Your task to perform on an android device: Open maps Image 0: 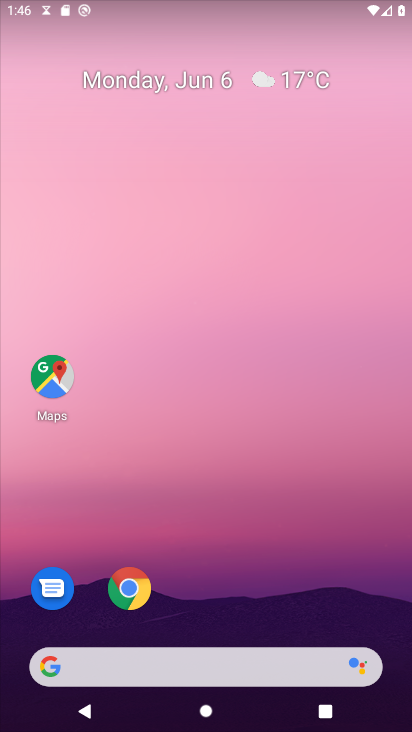
Step 0: click (51, 380)
Your task to perform on an android device: Open maps Image 1: 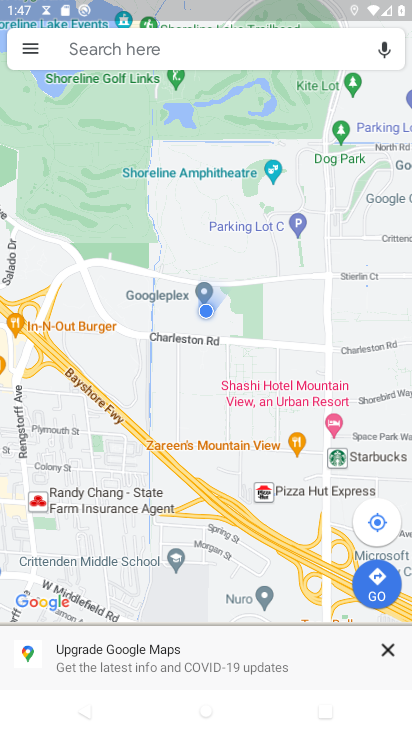
Step 1: task complete